Your task to perform on an android device: change the upload size in google photos Image 0: 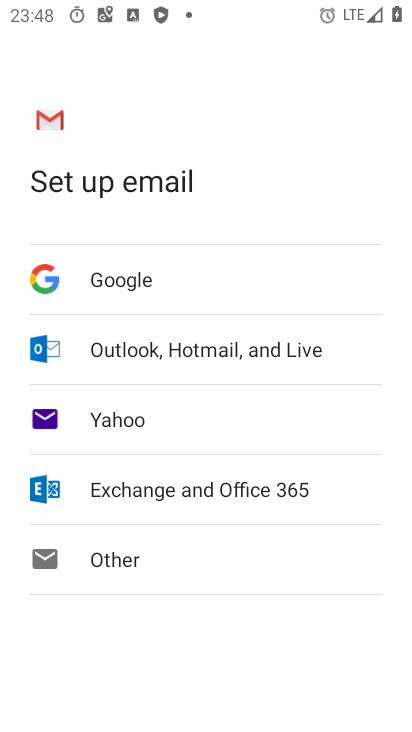
Step 0: press home button
Your task to perform on an android device: change the upload size in google photos Image 1: 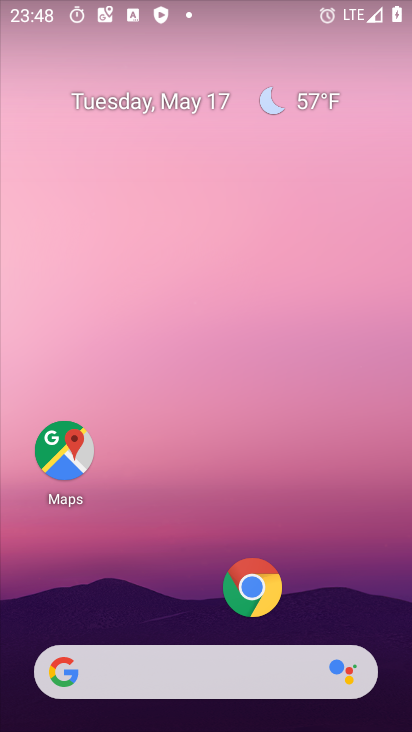
Step 1: drag from (73, 414) to (234, 95)
Your task to perform on an android device: change the upload size in google photos Image 2: 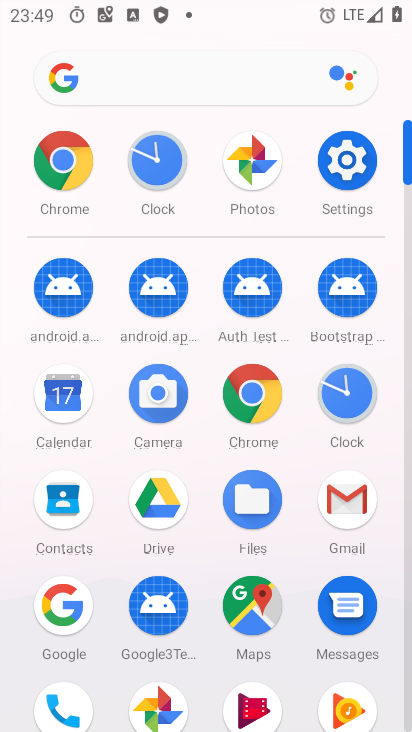
Step 2: click (151, 697)
Your task to perform on an android device: change the upload size in google photos Image 3: 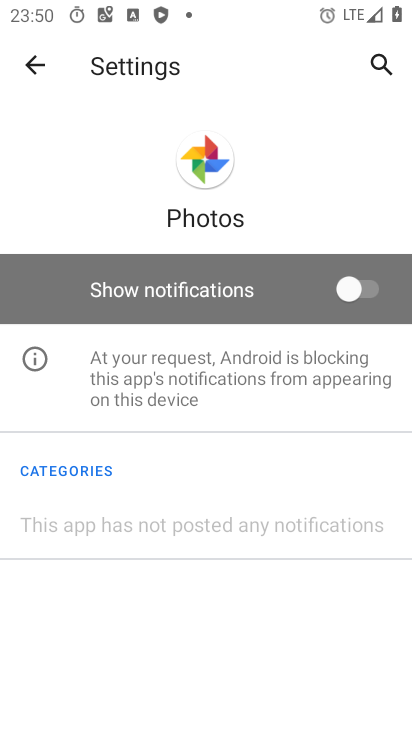
Step 3: press back button
Your task to perform on an android device: change the upload size in google photos Image 4: 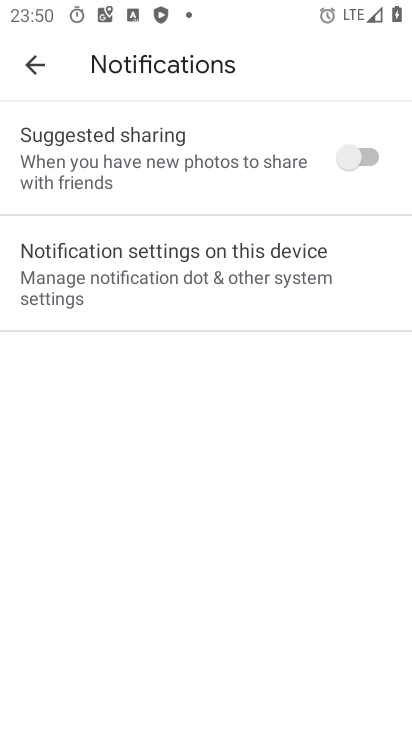
Step 4: press back button
Your task to perform on an android device: change the upload size in google photos Image 5: 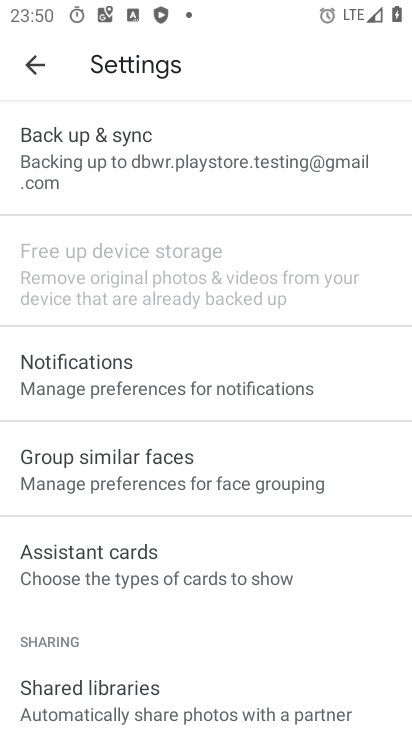
Step 5: click (156, 157)
Your task to perform on an android device: change the upload size in google photos Image 6: 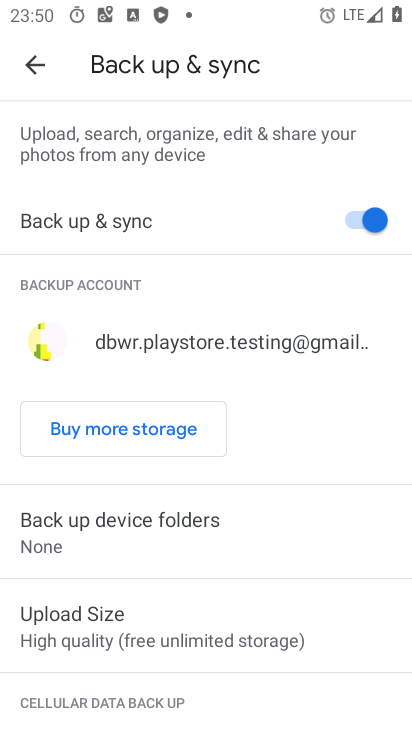
Step 6: click (139, 631)
Your task to perform on an android device: change the upload size in google photos Image 7: 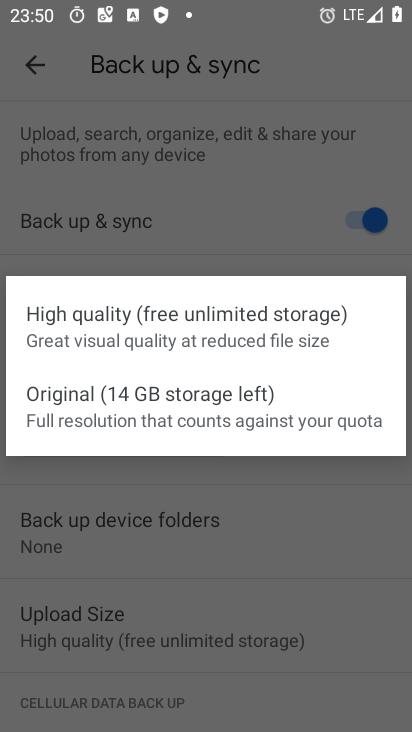
Step 7: click (218, 420)
Your task to perform on an android device: change the upload size in google photos Image 8: 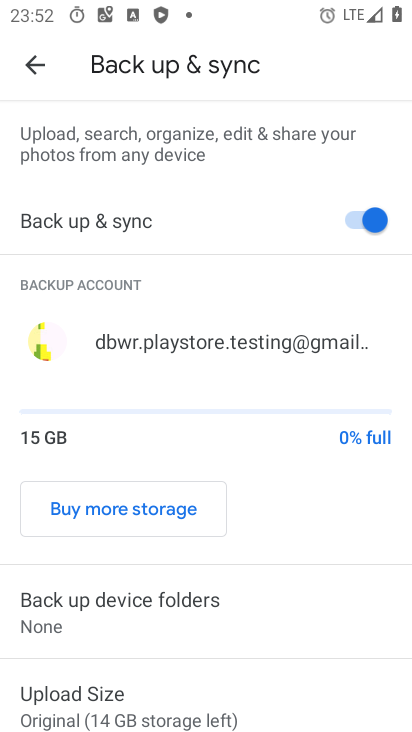
Step 8: task complete